Your task to perform on an android device: toggle improve location accuracy Image 0: 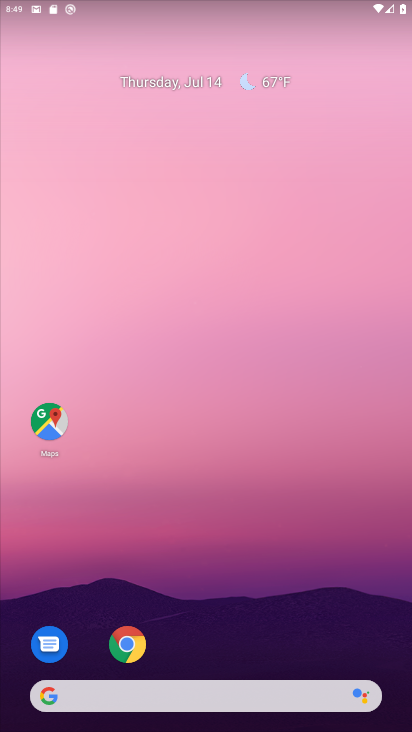
Step 0: drag from (222, 628) to (331, 113)
Your task to perform on an android device: toggle improve location accuracy Image 1: 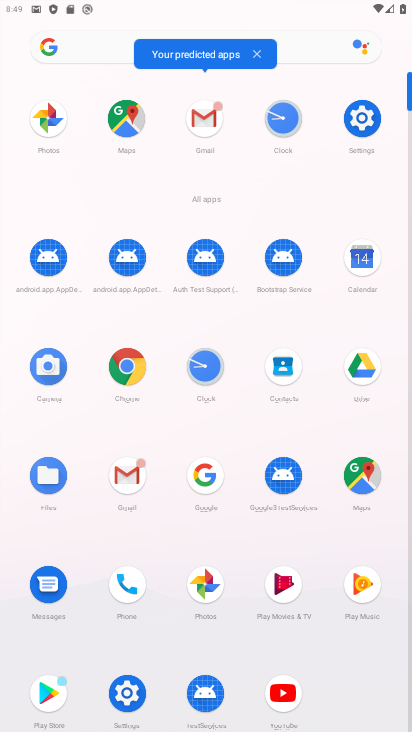
Step 1: click (133, 684)
Your task to perform on an android device: toggle improve location accuracy Image 2: 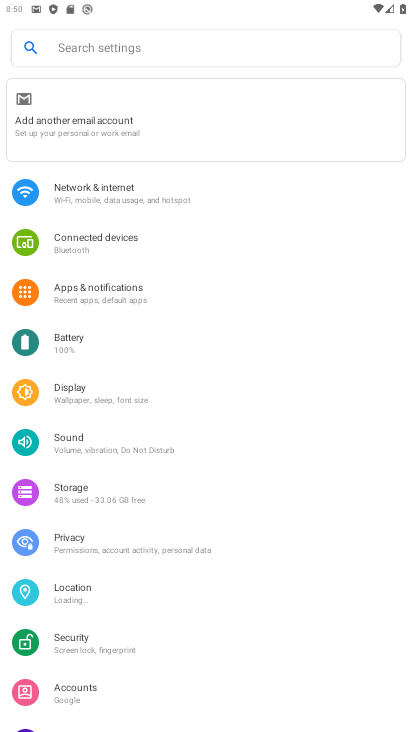
Step 2: click (115, 589)
Your task to perform on an android device: toggle improve location accuracy Image 3: 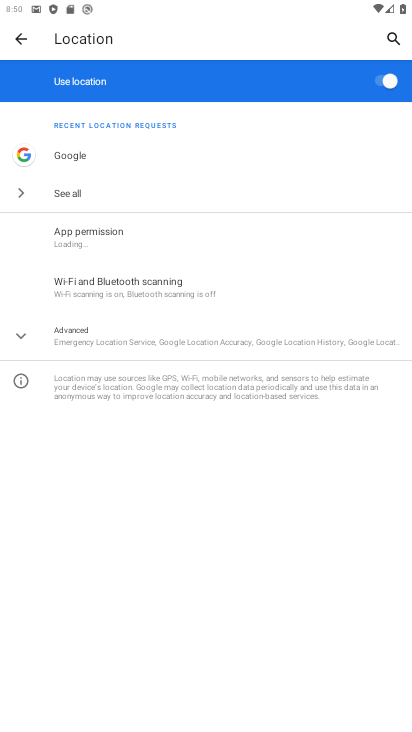
Step 3: click (144, 346)
Your task to perform on an android device: toggle improve location accuracy Image 4: 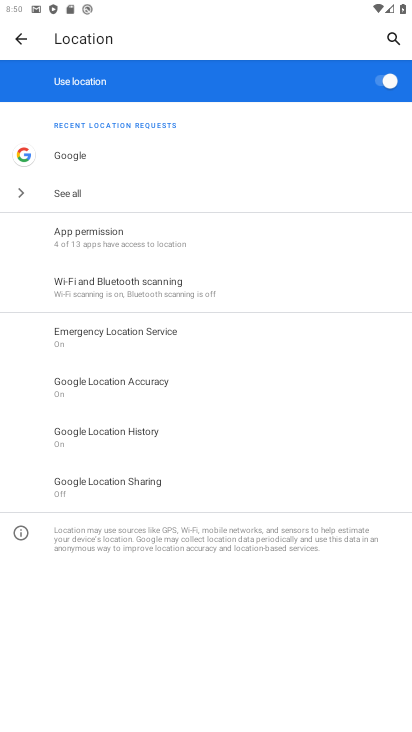
Step 4: click (167, 384)
Your task to perform on an android device: toggle improve location accuracy Image 5: 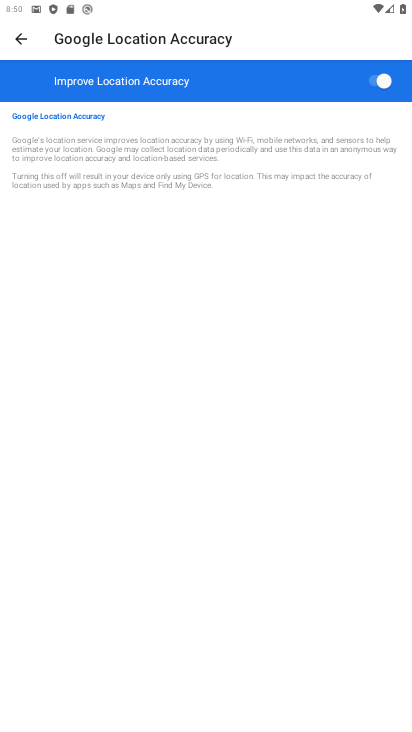
Step 5: click (166, 396)
Your task to perform on an android device: toggle improve location accuracy Image 6: 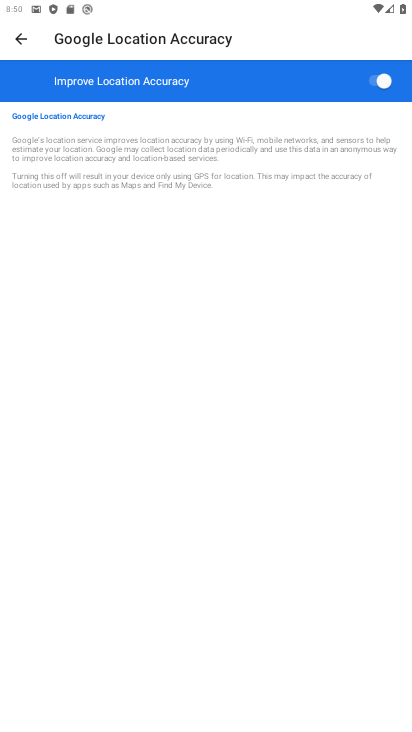
Step 6: click (375, 84)
Your task to perform on an android device: toggle improve location accuracy Image 7: 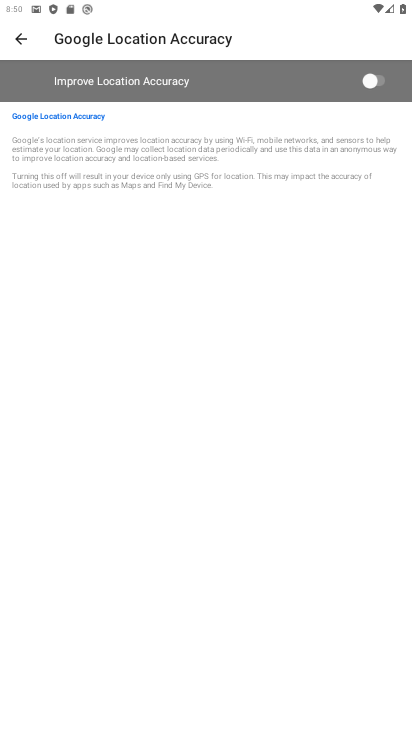
Step 7: click (381, 83)
Your task to perform on an android device: toggle improve location accuracy Image 8: 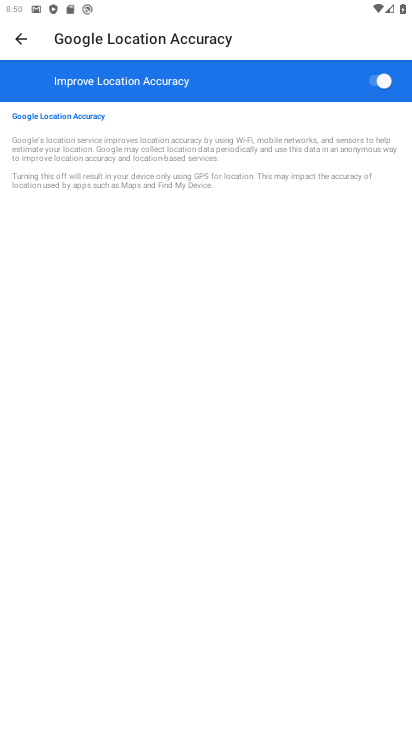
Step 8: task complete